Your task to perform on an android device: Go to Wikipedia Image 0: 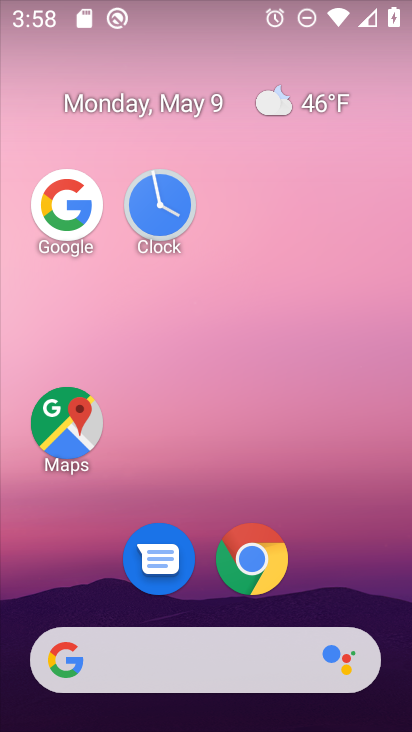
Step 0: click (247, 576)
Your task to perform on an android device: Go to Wikipedia Image 1: 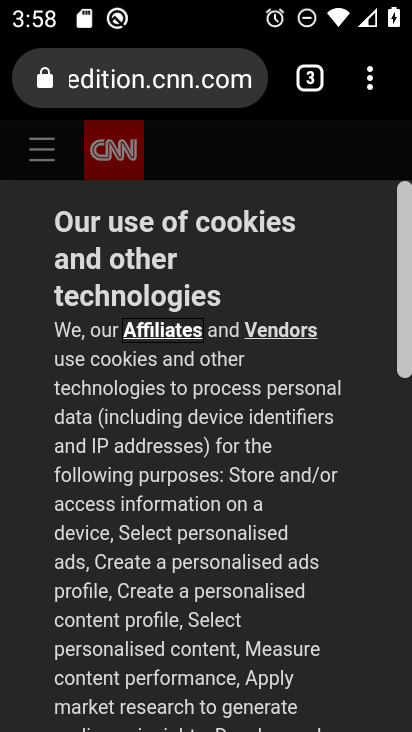
Step 1: click (317, 66)
Your task to perform on an android device: Go to Wikipedia Image 2: 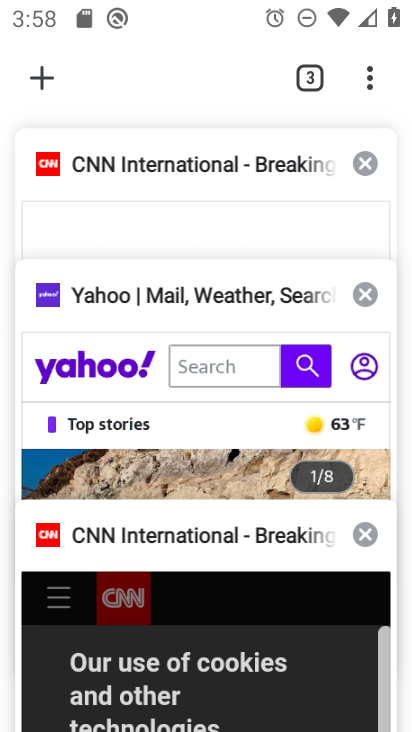
Step 2: click (42, 82)
Your task to perform on an android device: Go to Wikipedia Image 3: 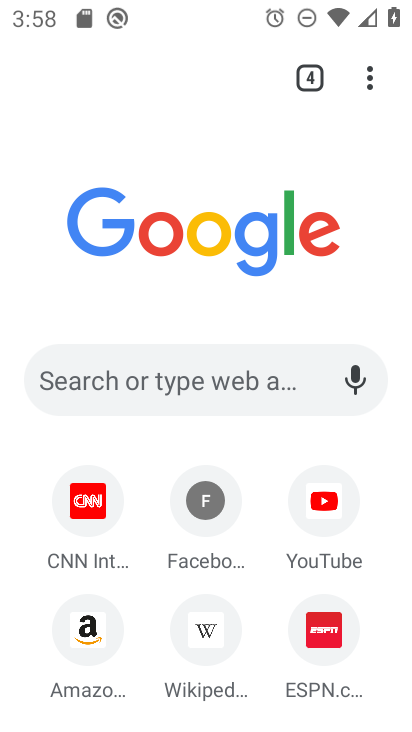
Step 3: click (210, 619)
Your task to perform on an android device: Go to Wikipedia Image 4: 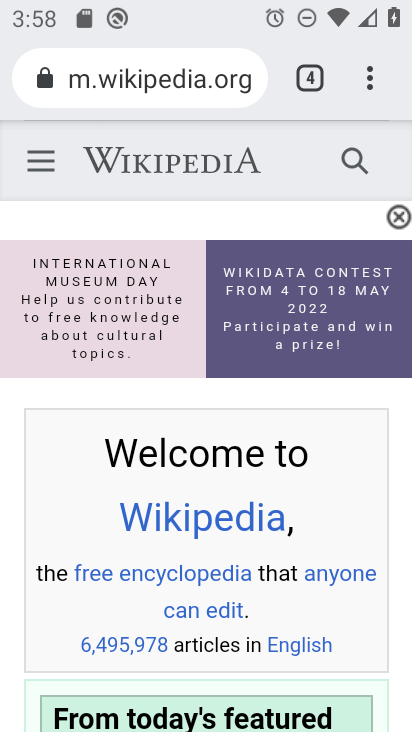
Step 4: task complete